Your task to perform on an android device: Open Yahoo.com Image 0: 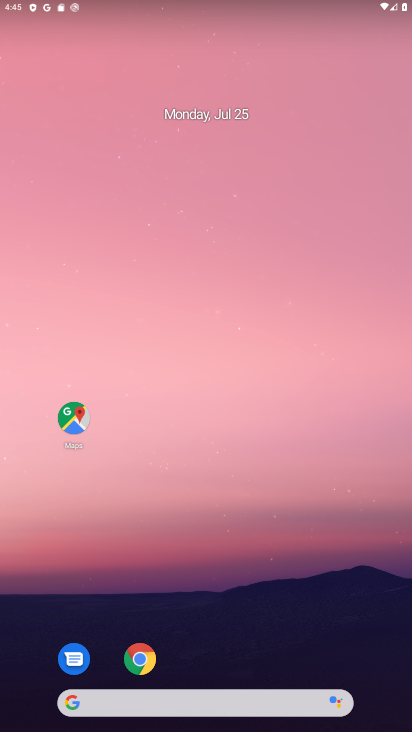
Step 0: click (139, 669)
Your task to perform on an android device: Open Yahoo.com Image 1: 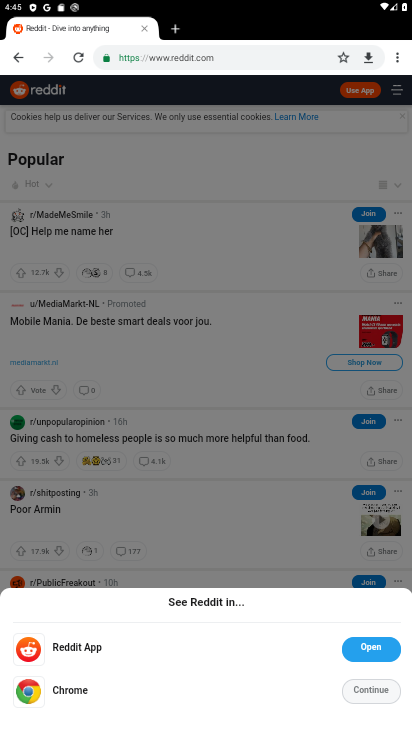
Step 1: click (186, 59)
Your task to perform on an android device: Open Yahoo.com Image 2: 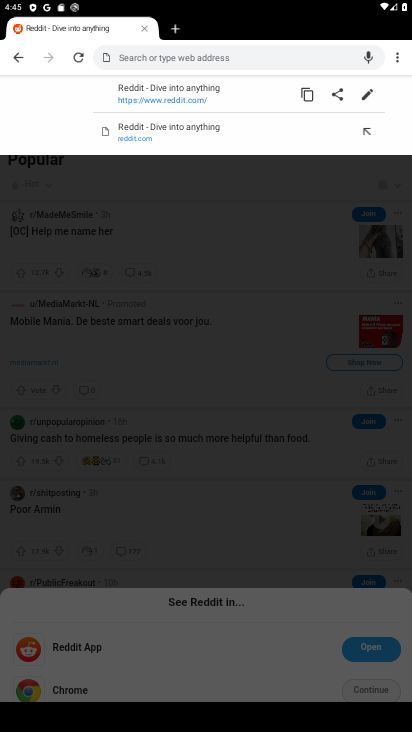
Step 2: type "www.yahoo.com"
Your task to perform on an android device: Open Yahoo.com Image 3: 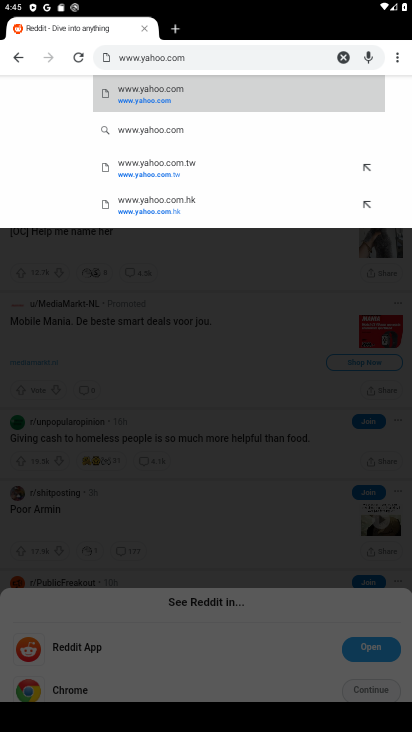
Step 3: click (161, 104)
Your task to perform on an android device: Open Yahoo.com Image 4: 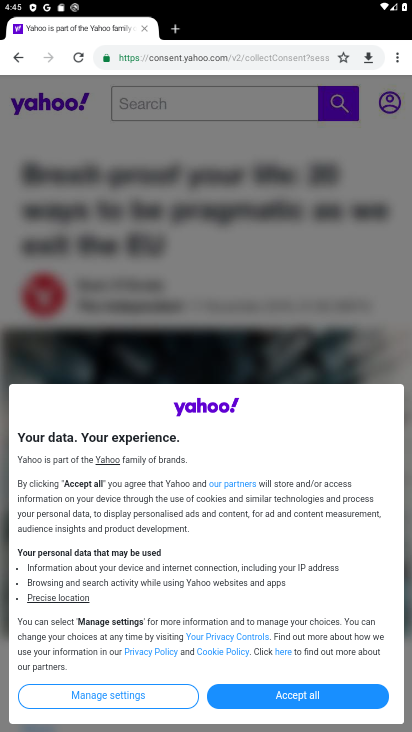
Step 4: task complete